Your task to perform on an android device: Open Google Maps Image 0: 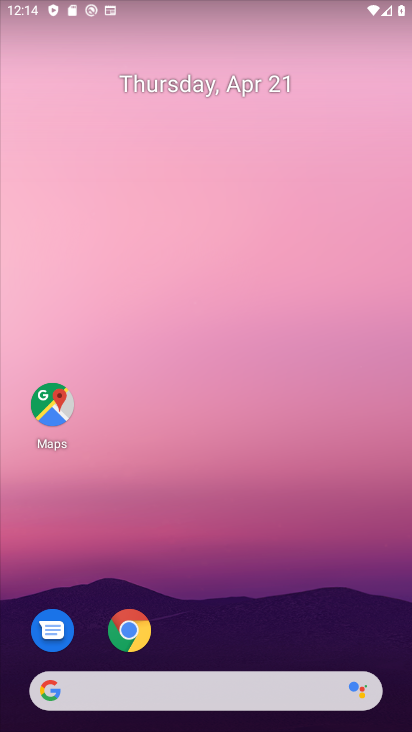
Step 0: drag from (291, 512) to (362, 2)
Your task to perform on an android device: Open Google Maps Image 1: 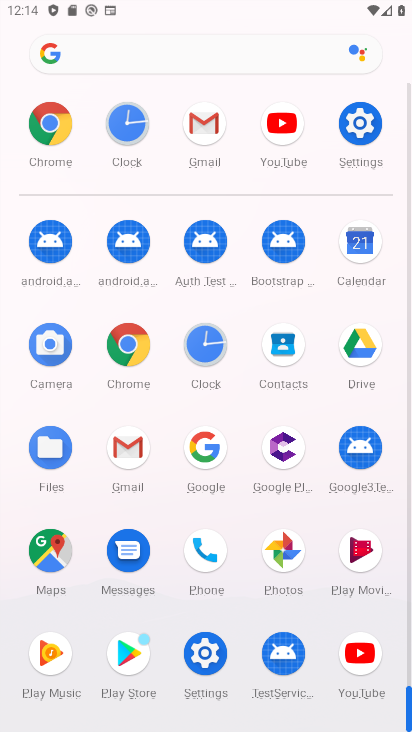
Step 1: click (48, 560)
Your task to perform on an android device: Open Google Maps Image 2: 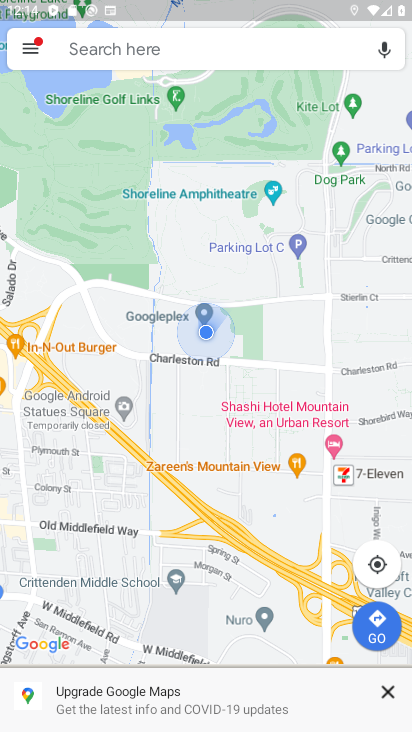
Step 2: task complete